Your task to perform on an android device: open sync settings in chrome Image 0: 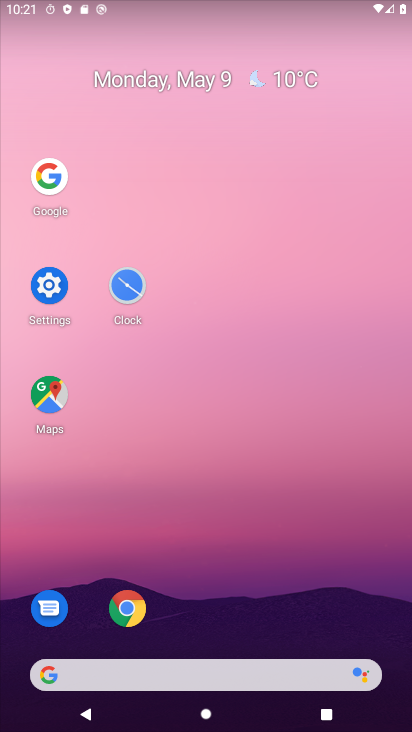
Step 0: click (125, 611)
Your task to perform on an android device: open sync settings in chrome Image 1: 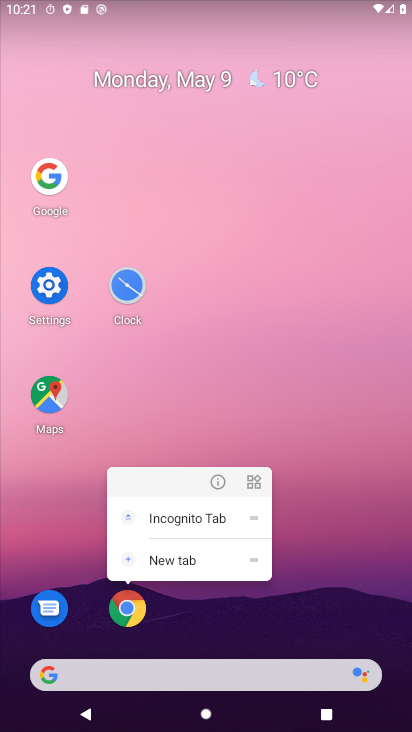
Step 1: click (130, 616)
Your task to perform on an android device: open sync settings in chrome Image 2: 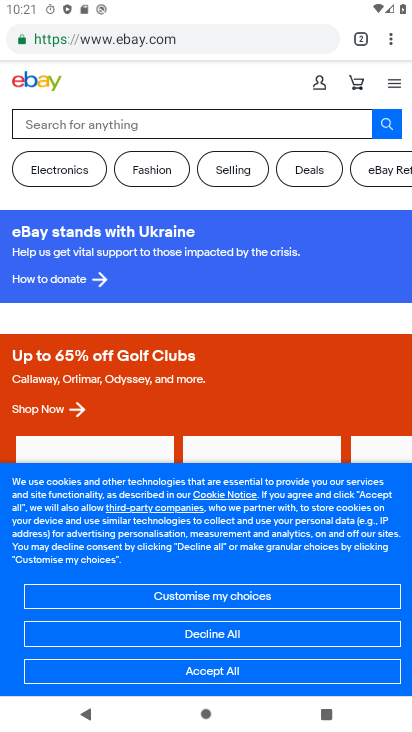
Step 2: click (392, 41)
Your task to perform on an android device: open sync settings in chrome Image 3: 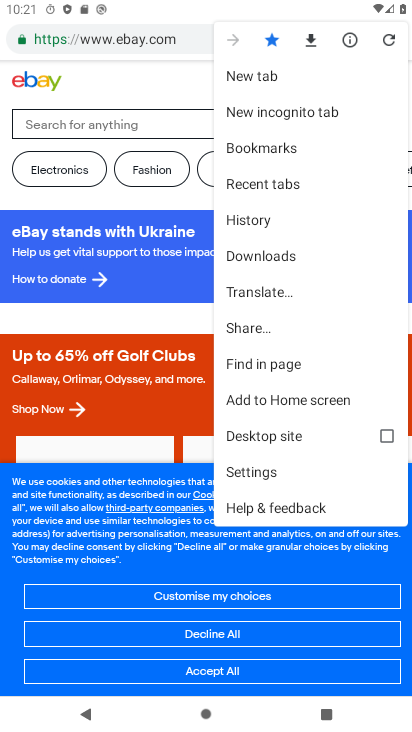
Step 3: click (254, 470)
Your task to perform on an android device: open sync settings in chrome Image 4: 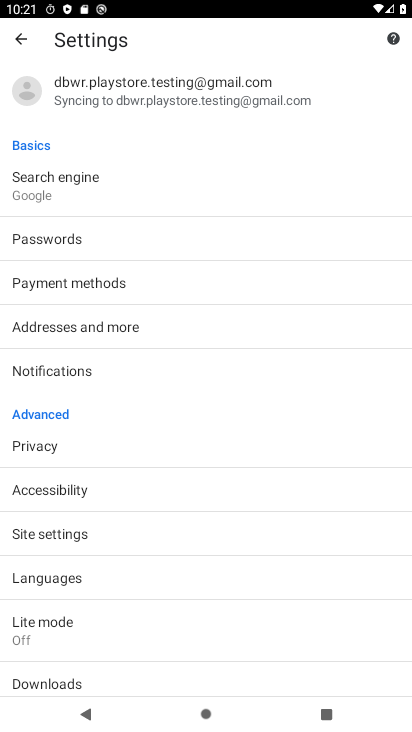
Step 4: drag from (82, 613) to (150, 482)
Your task to perform on an android device: open sync settings in chrome Image 5: 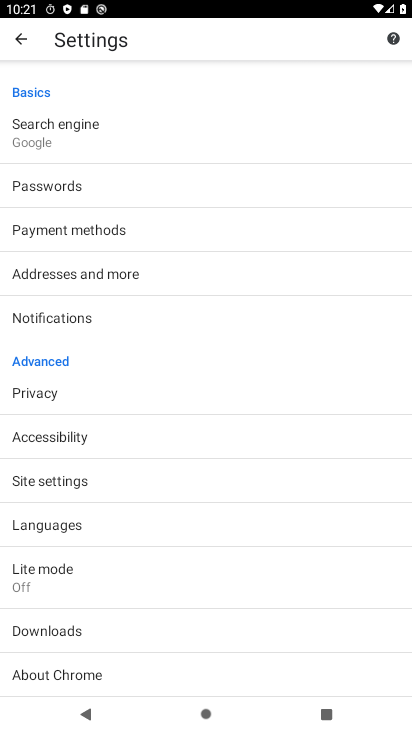
Step 5: click (102, 491)
Your task to perform on an android device: open sync settings in chrome Image 6: 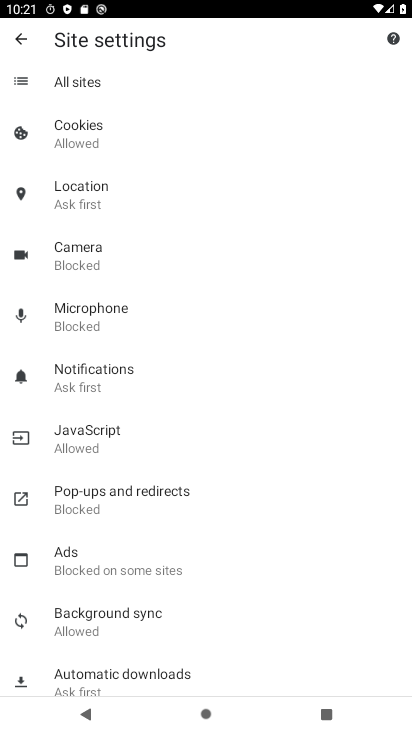
Step 6: click (179, 610)
Your task to perform on an android device: open sync settings in chrome Image 7: 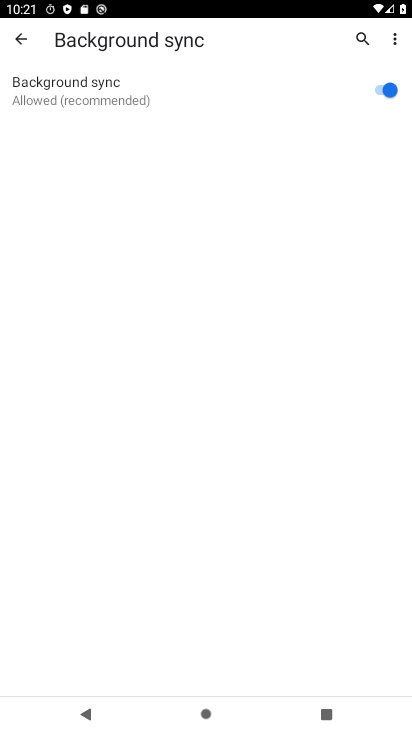
Step 7: task complete